Your task to perform on an android device: Open Reddit.com Image 0: 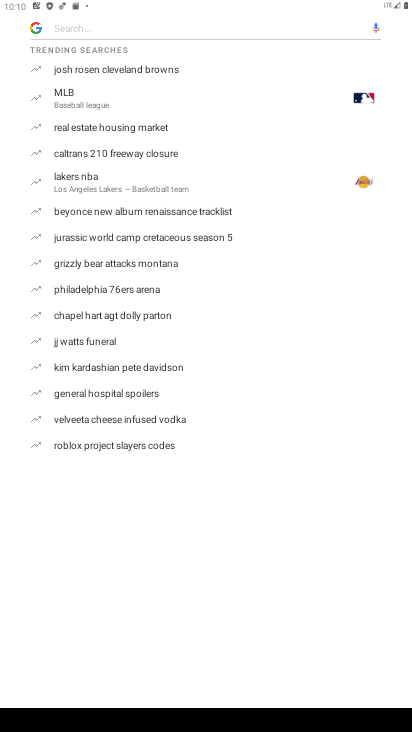
Step 0: press home button
Your task to perform on an android device: Open Reddit.com Image 1: 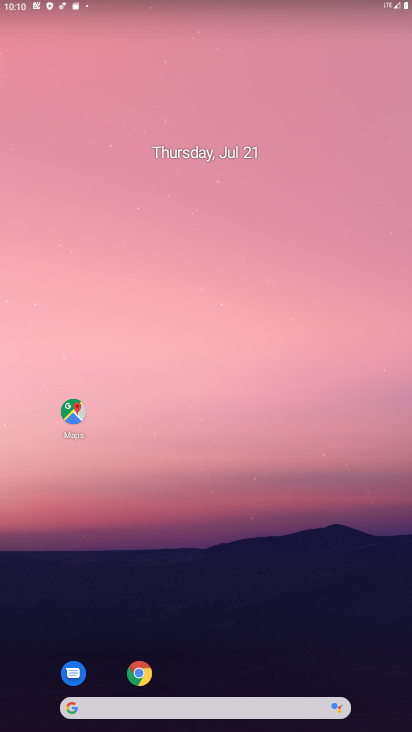
Step 1: click (148, 663)
Your task to perform on an android device: Open Reddit.com Image 2: 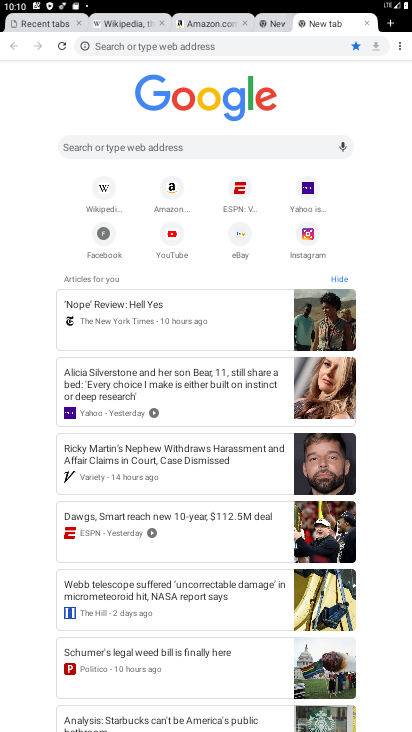
Step 2: click (124, 159)
Your task to perform on an android device: Open Reddit.com Image 3: 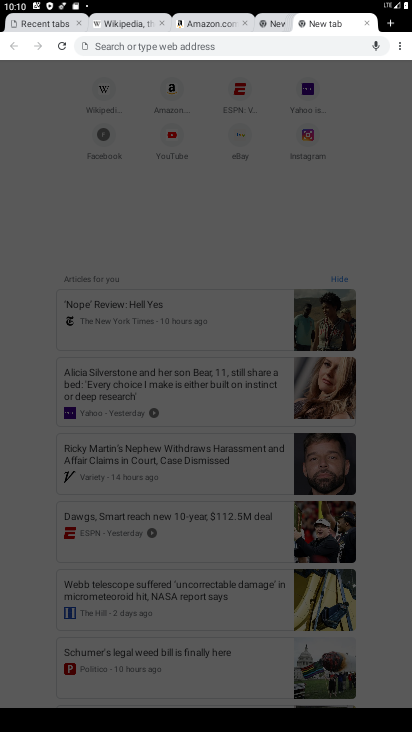
Step 3: type "Reddit.com"
Your task to perform on an android device: Open Reddit.com Image 4: 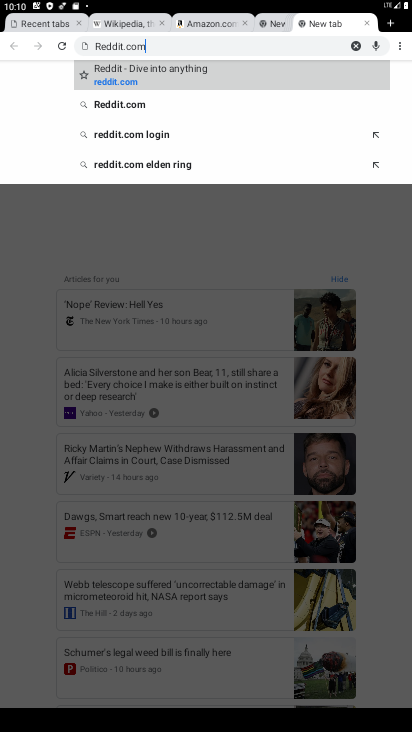
Step 4: type ""
Your task to perform on an android device: Open Reddit.com Image 5: 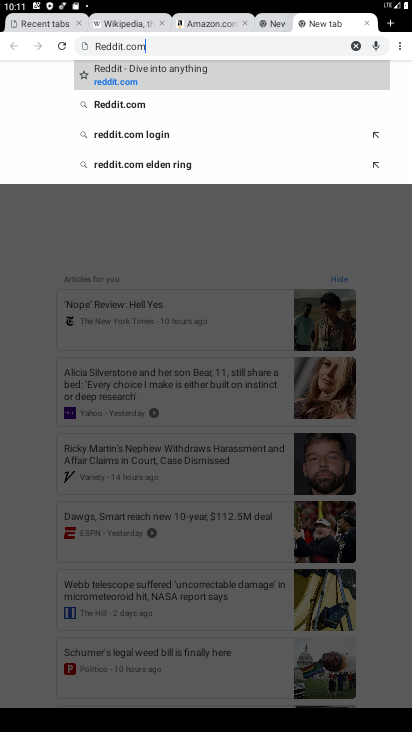
Step 5: click (152, 77)
Your task to perform on an android device: Open Reddit.com Image 6: 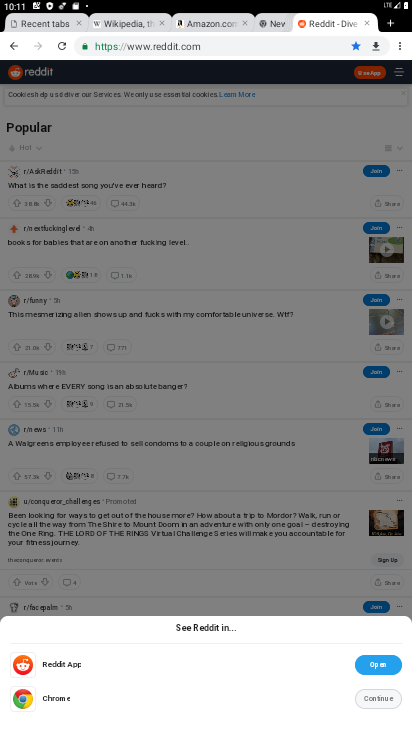
Step 6: click (386, 693)
Your task to perform on an android device: Open Reddit.com Image 7: 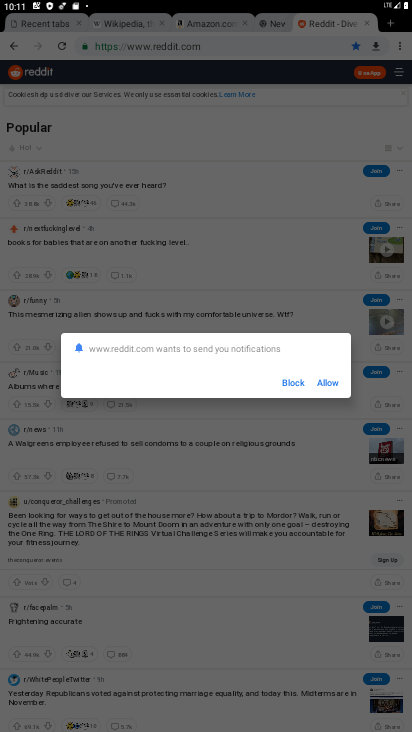
Step 7: task complete